Your task to perform on an android device: Check the weather Image 0: 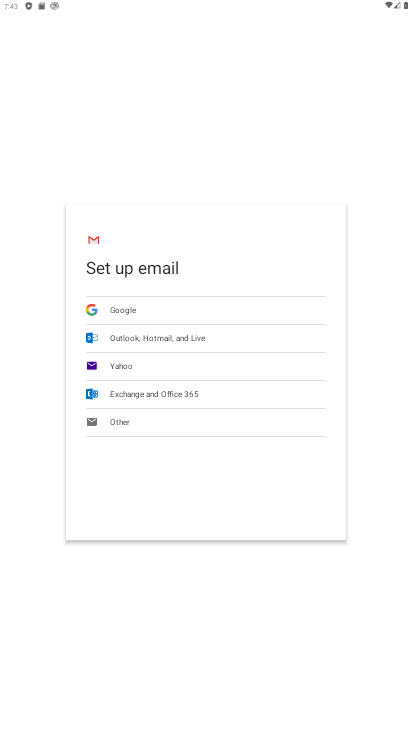
Step 0: press home button
Your task to perform on an android device: Check the weather Image 1: 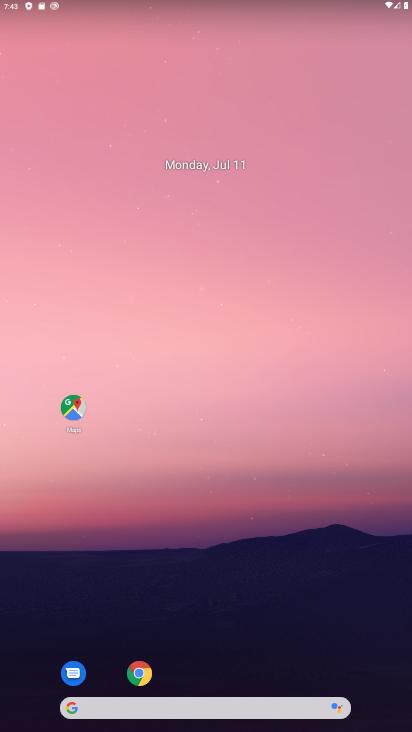
Step 1: drag from (316, 639) to (310, 55)
Your task to perform on an android device: Check the weather Image 2: 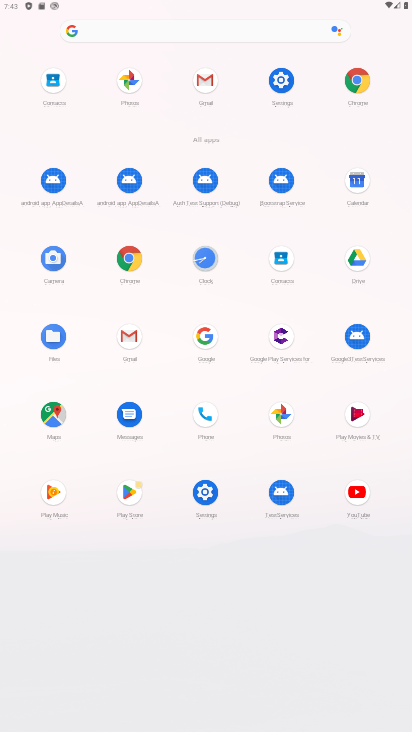
Step 2: click (129, 260)
Your task to perform on an android device: Check the weather Image 3: 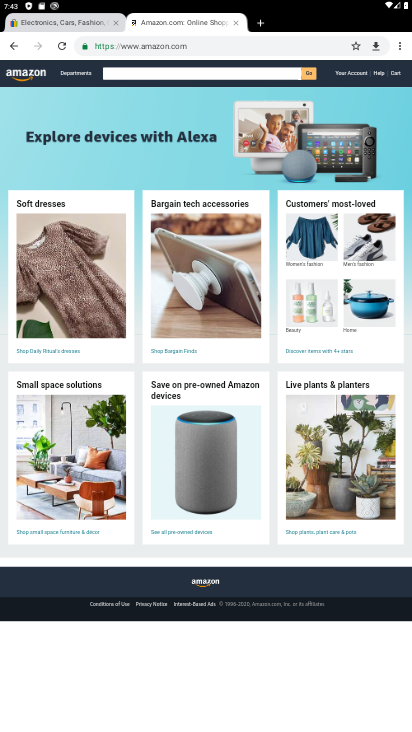
Step 3: click (164, 48)
Your task to perform on an android device: Check the weather Image 4: 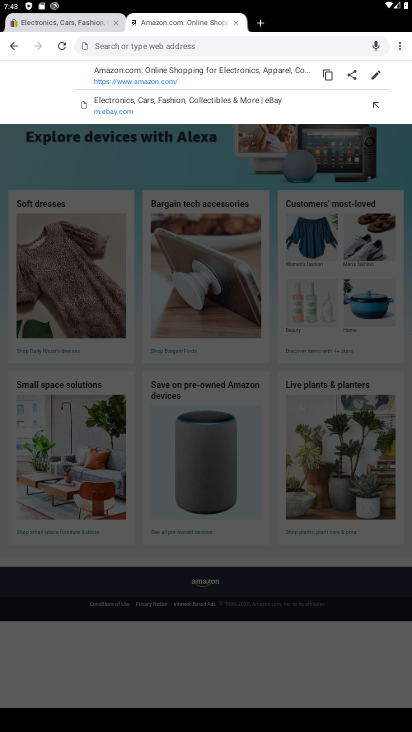
Step 4: type "weather"
Your task to perform on an android device: Check the weather Image 5: 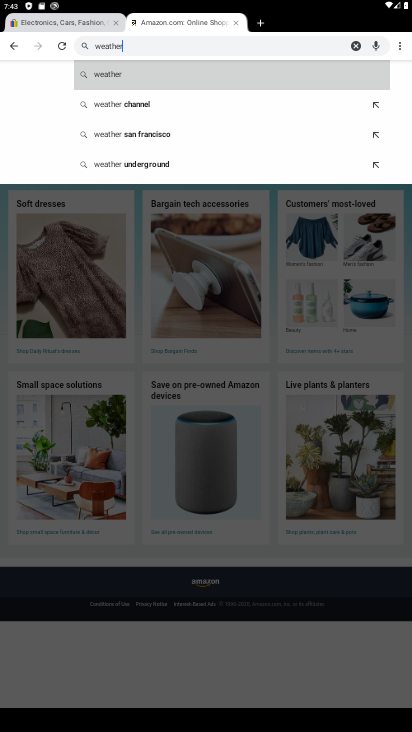
Step 5: click (114, 82)
Your task to perform on an android device: Check the weather Image 6: 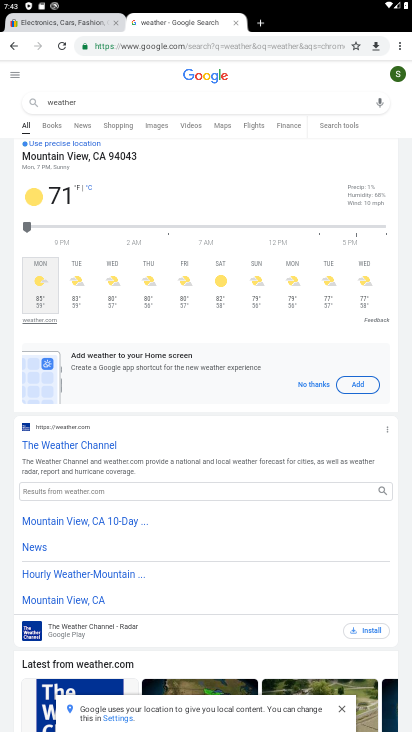
Step 6: task complete